Your task to perform on an android device: check data usage Image 0: 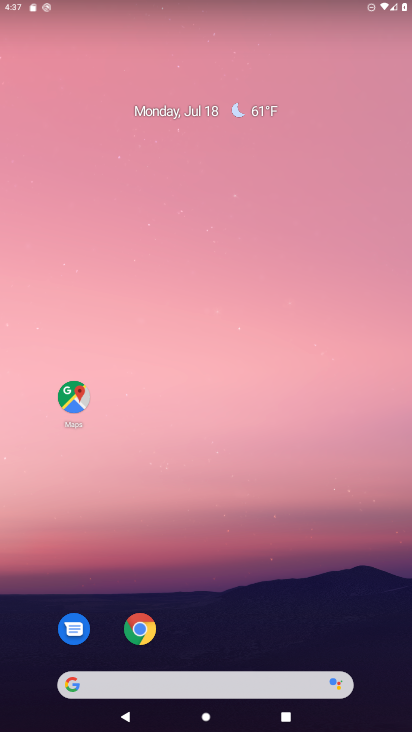
Step 0: drag from (207, 672) to (306, 27)
Your task to perform on an android device: check data usage Image 1: 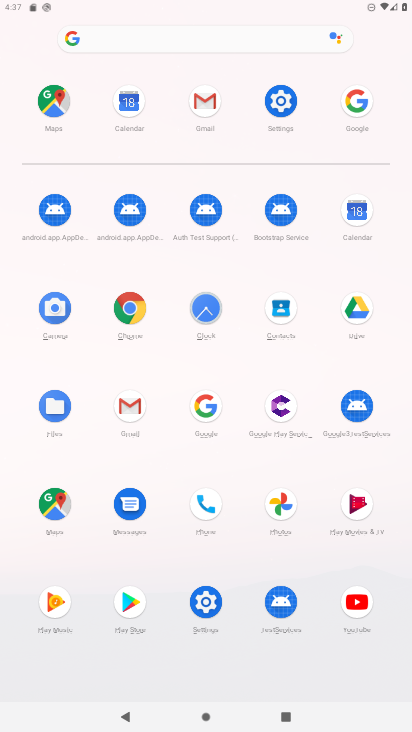
Step 1: click (276, 96)
Your task to perform on an android device: check data usage Image 2: 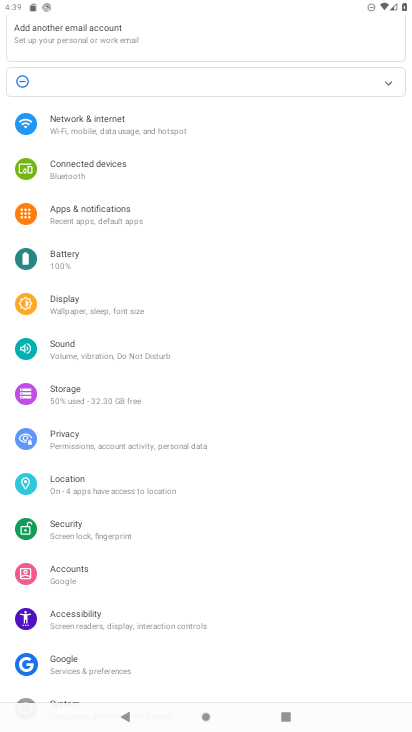
Step 2: click (105, 129)
Your task to perform on an android device: check data usage Image 3: 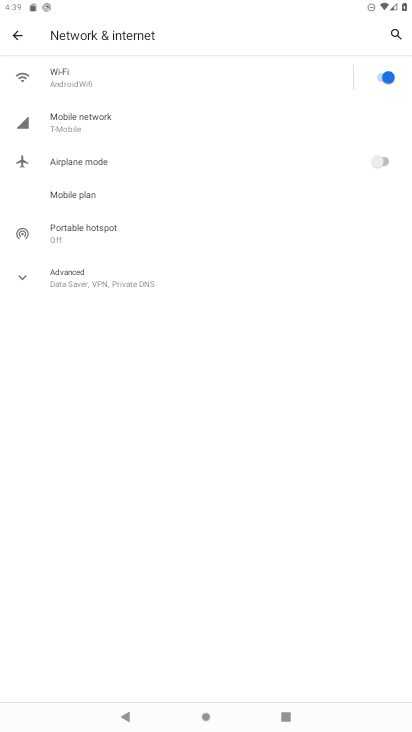
Step 3: click (118, 118)
Your task to perform on an android device: check data usage Image 4: 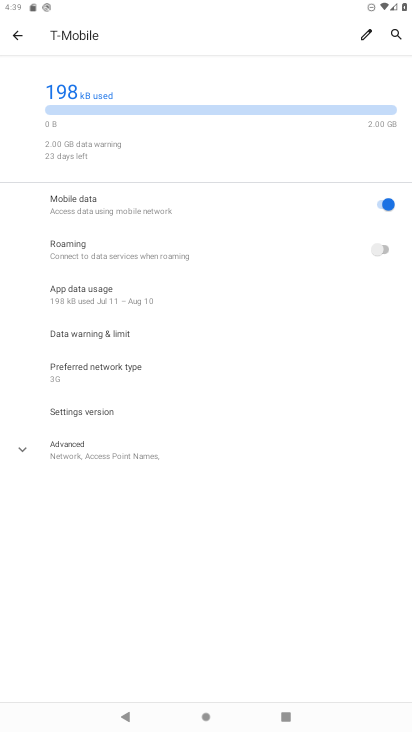
Step 4: task complete